Your task to perform on an android device: turn pop-ups off in chrome Image 0: 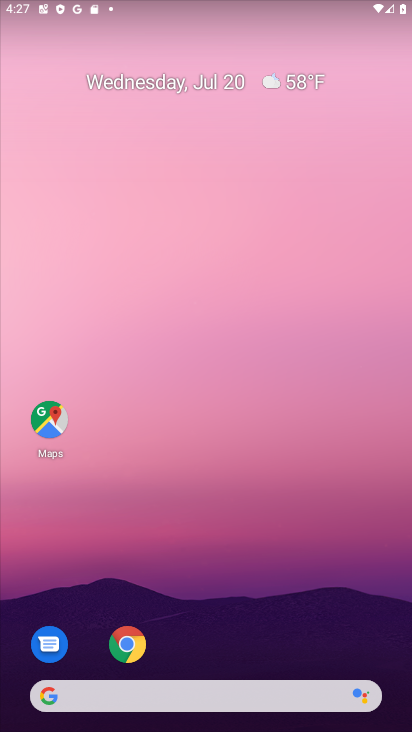
Step 0: drag from (211, 658) to (272, 14)
Your task to perform on an android device: turn pop-ups off in chrome Image 1: 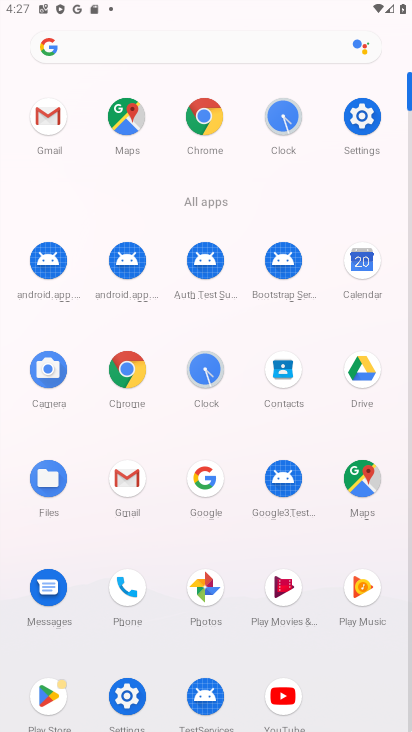
Step 1: click (198, 118)
Your task to perform on an android device: turn pop-ups off in chrome Image 2: 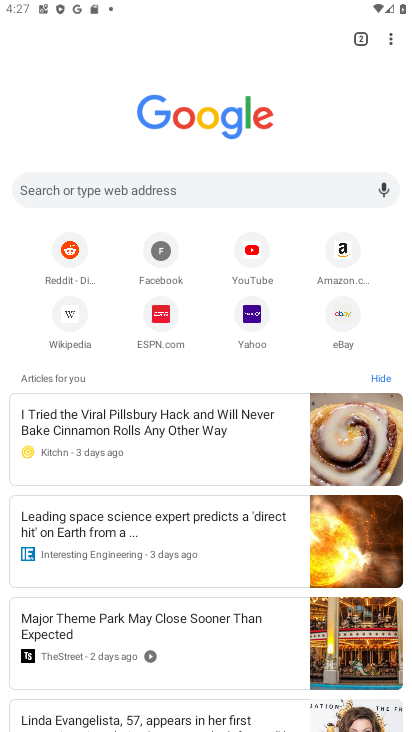
Step 2: drag from (394, 38) to (276, 323)
Your task to perform on an android device: turn pop-ups off in chrome Image 3: 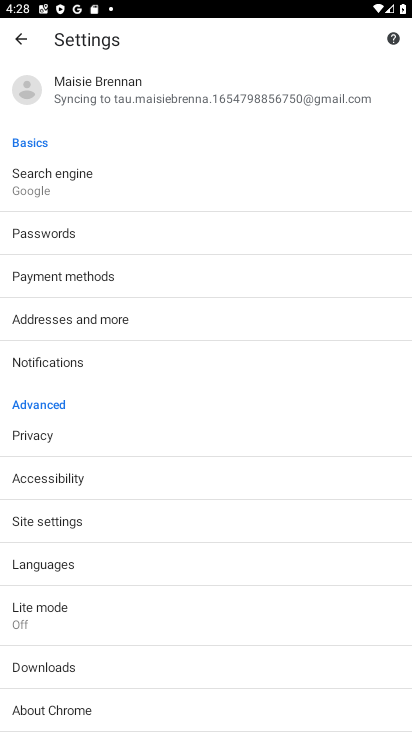
Step 3: click (37, 517)
Your task to perform on an android device: turn pop-ups off in chrome Image 4: 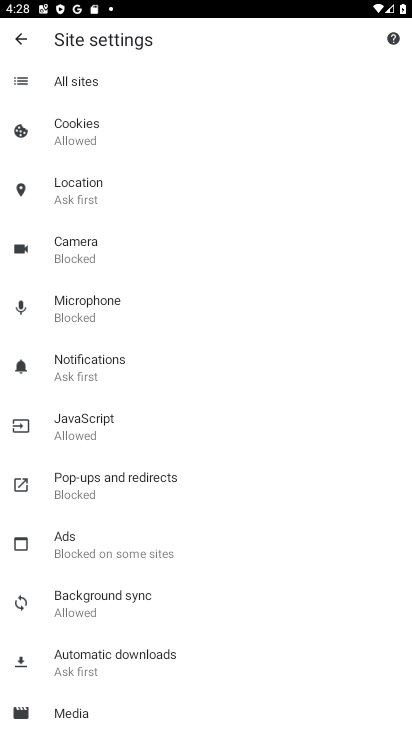
Step 4: click (102, 487)
Your task to perform on an android device: turn pop-ups off in chrome Image 5: 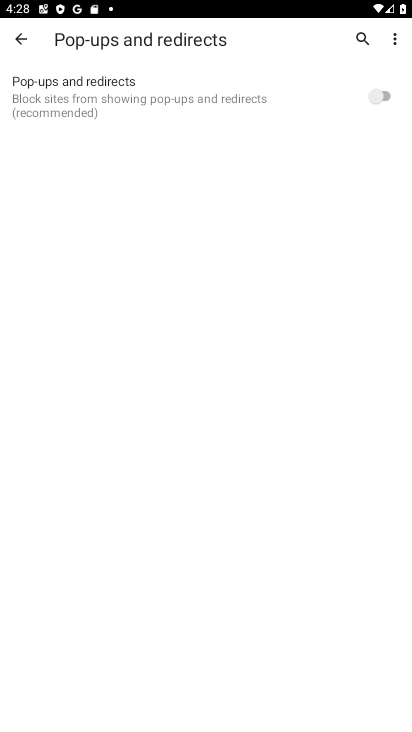
Step 5: task complete